Your task to perform on an android device: turn on showing notifications on the lock screen Image 0: 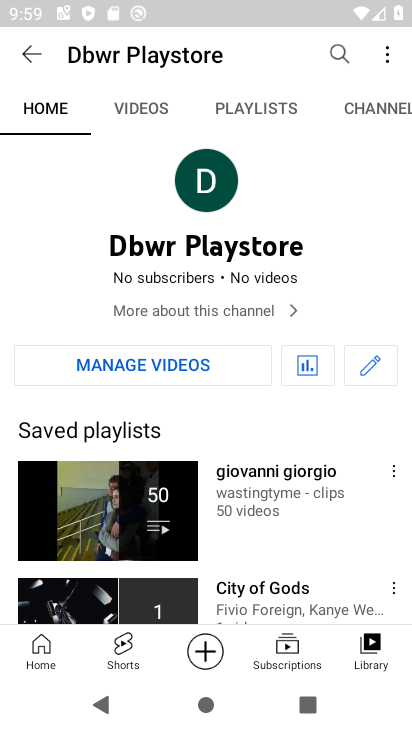
Step 0: press home button
Your task to perform on an android device: turn on showing notifications on the lock screen Image 1: 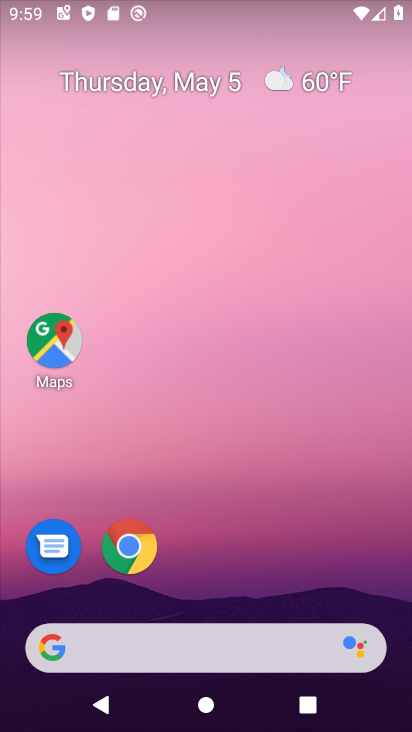
Step 1: drag from (248, 557) to (285, 2)
Your task to perform on an android device: turn on showing notifications on the lock screen Image 2: 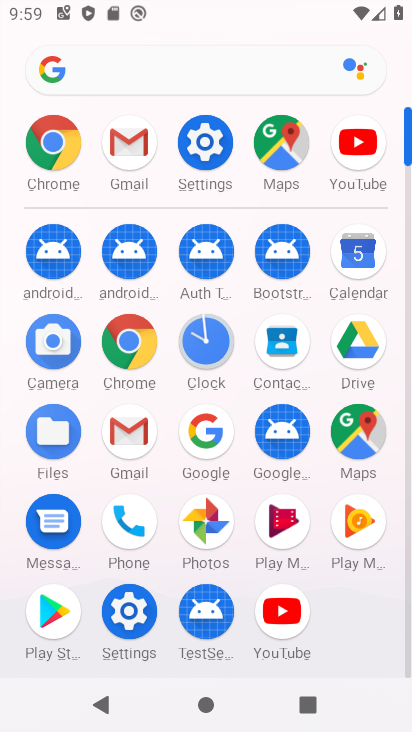
Step 2: click (205, 150)
Your task to perform on an android device: turn on showing notifications on the lock screen Image 3: 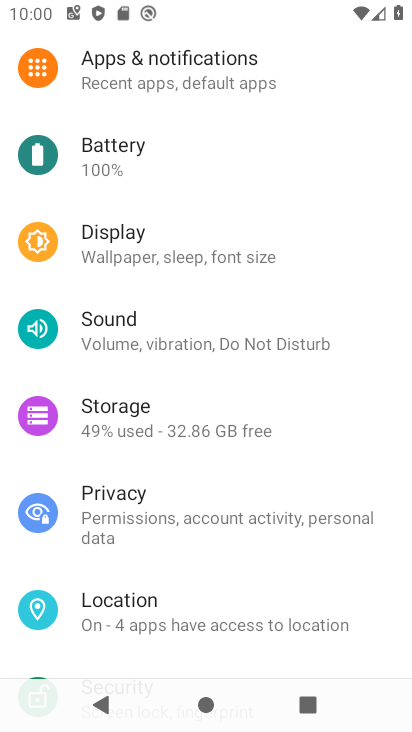
Step 3: click (210, 78)
Your task to perform on an android device: turn on showing notifications on the lock screen Image 4: 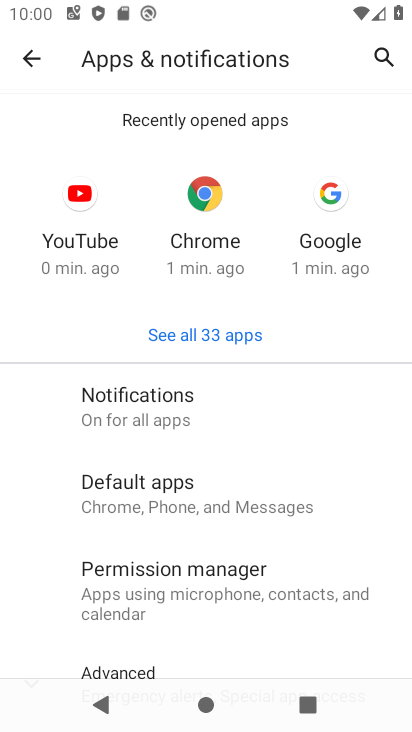
Step 4: click (162, 397)
Your task to perform on an android device: turn on showing notifications on the lock screen Image 5: 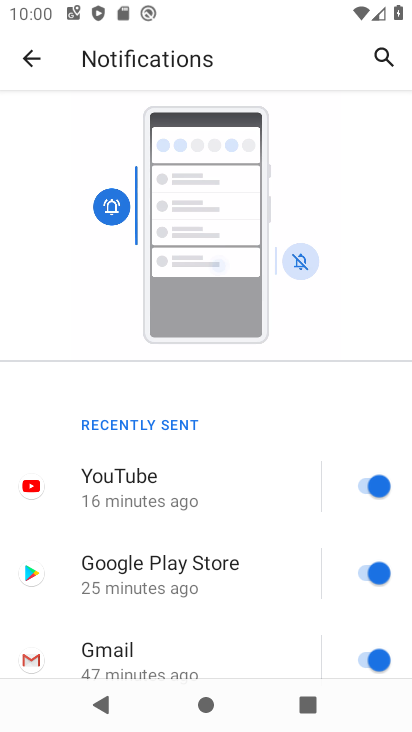
Step 5: drag from (229, 518) to (256, 256)
Your task to perform on an android device: turn on showing notifications on the lock screen Image 6: 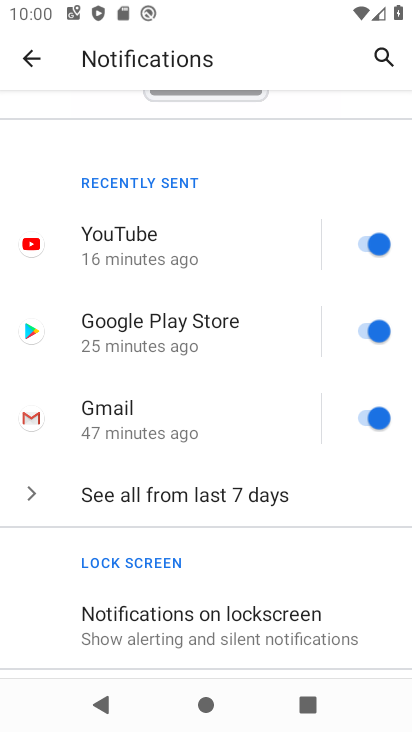
Step 6: click (256, 616)
Your task to perform on an android device: turn on showing notifications on the lock screen Image 7: 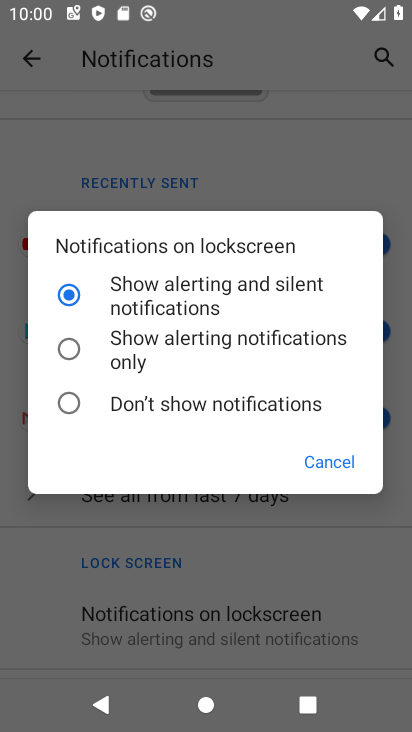
Step 7: click (211, 287)
Your task to perform on an android device: turn on showing notifications on the lock screen Image 8: 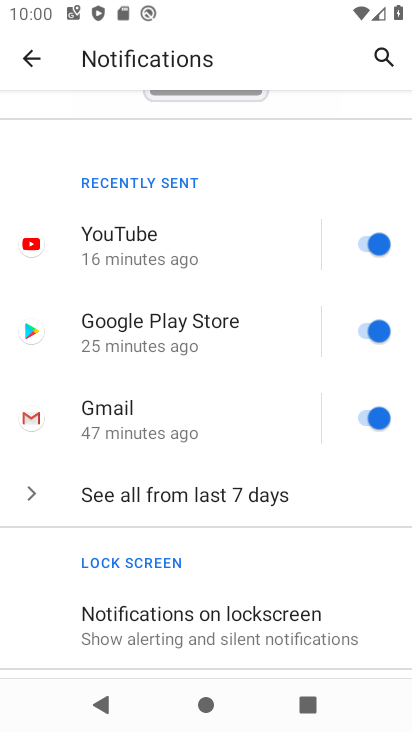
Step 8: task complete